Your task to perform on an android device: Search for razer thresher on newegg, select the first entry, and add it to the cart. Image 0: 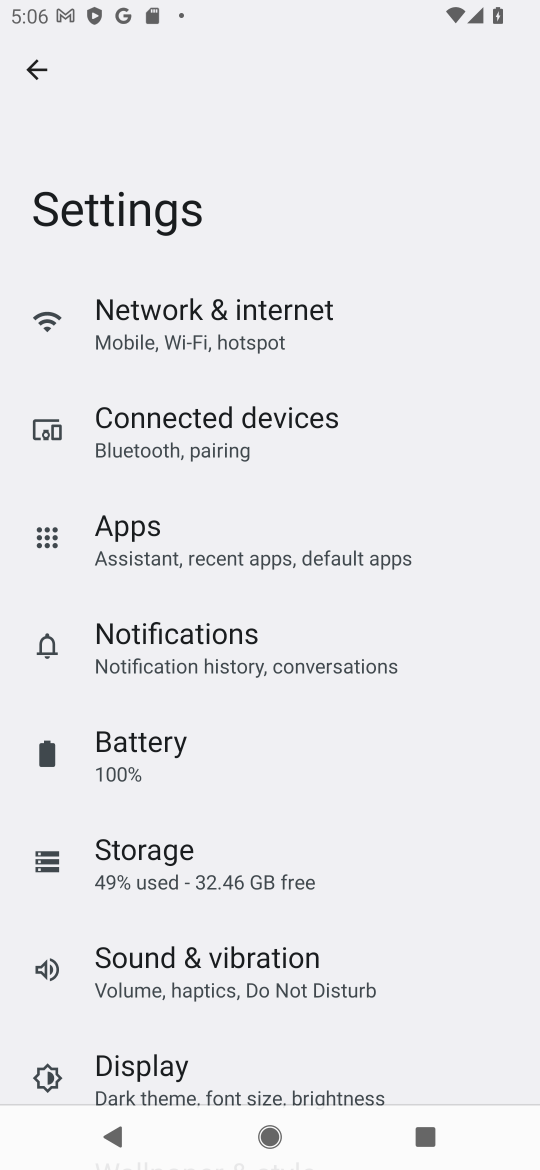
Step 0: task complete